Your task to perform on an android device: Go to Amazon Image 0: 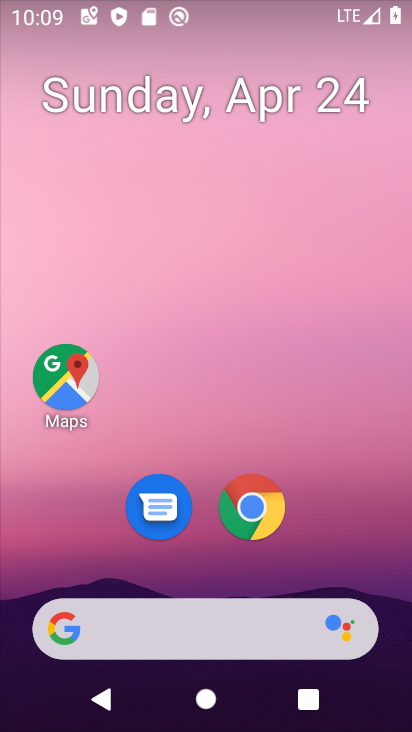
Step 0: click (257, 510)
Your task to perform on an android device: Go to Amazon Image 1: 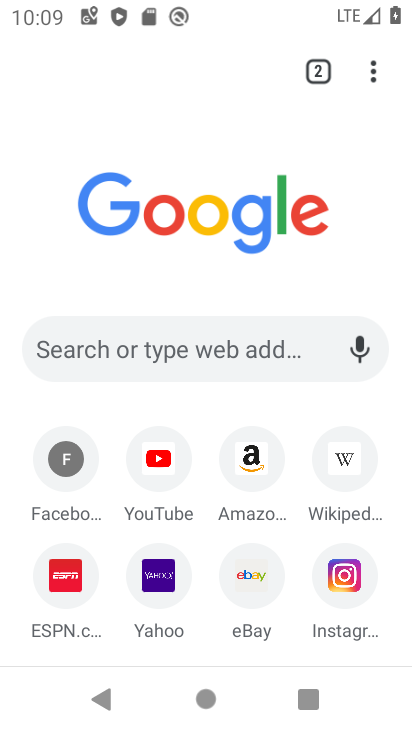
Step 1: click (255, 476)
Your task to perform on an android device: Go to Amazon Image 2: 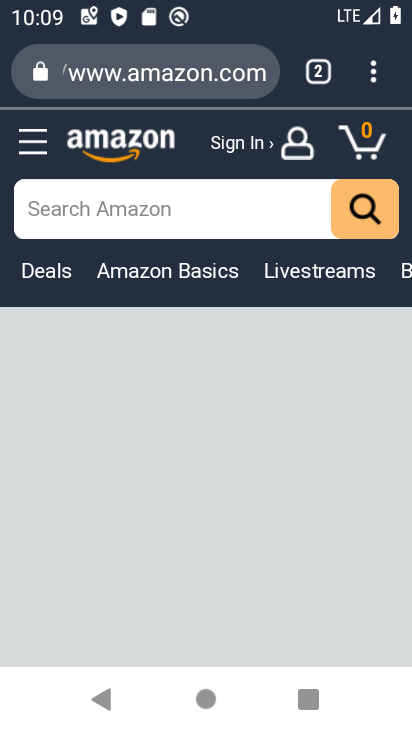
Step 2: task complete